Your task to perform on an android device: Open the map Image 0: 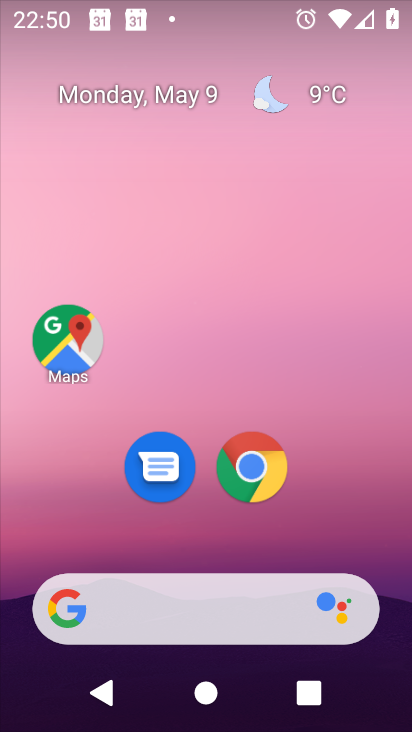
Step 0: click (56, 347)
Your task to perform on an android device: Open the map Image 1: 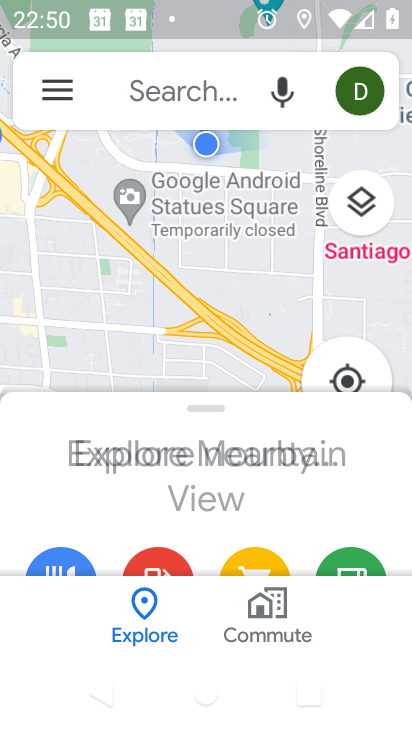
Step 1: task complete